Your task to perform on an android device: delete the emails in spam in the gmail app Image 0: 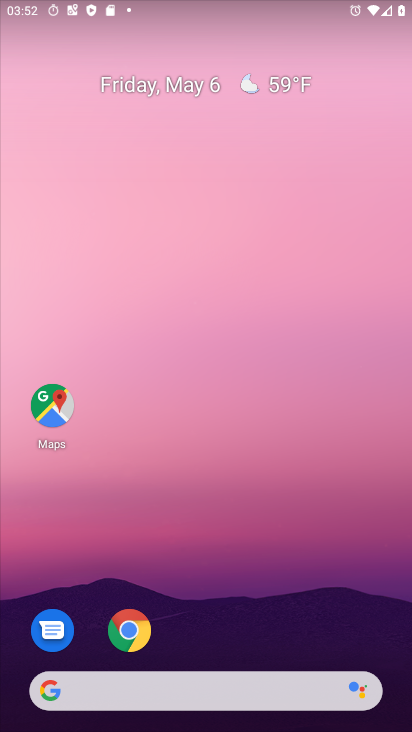
Step 0: drag from (225, 635) to (232, 220)
Your task to perform on an android device: delete the emails in spam in the gmail app Image 1: 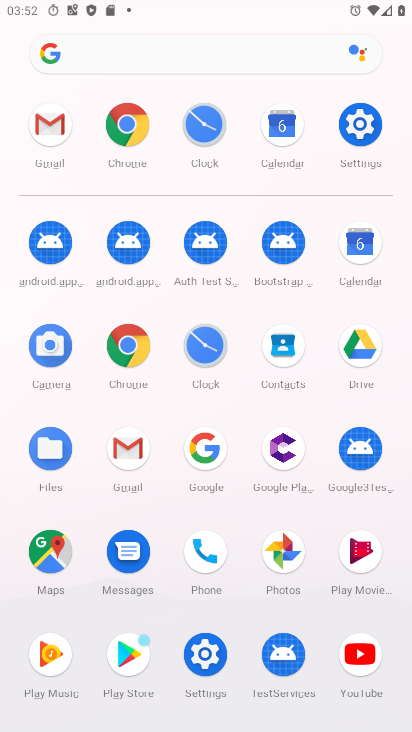
Step 1: click (67, 135)
Your task to perform on an android device: delete the emails in spam in the gmail app Image 2: 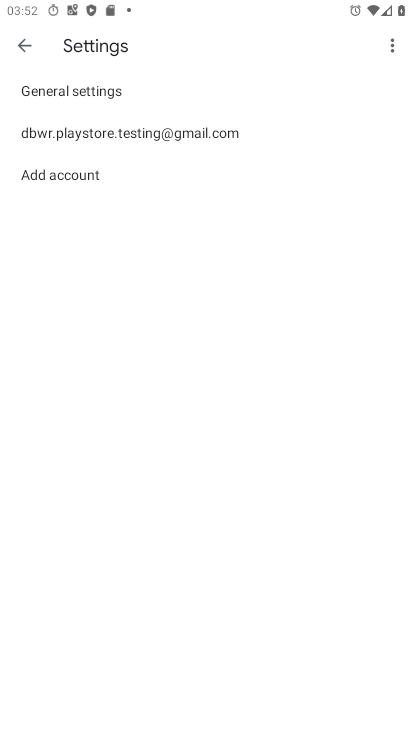
Step 2: click (19, 46)
Your task to perform on an android device: delete the emails in spam in the gmail app Image 3: 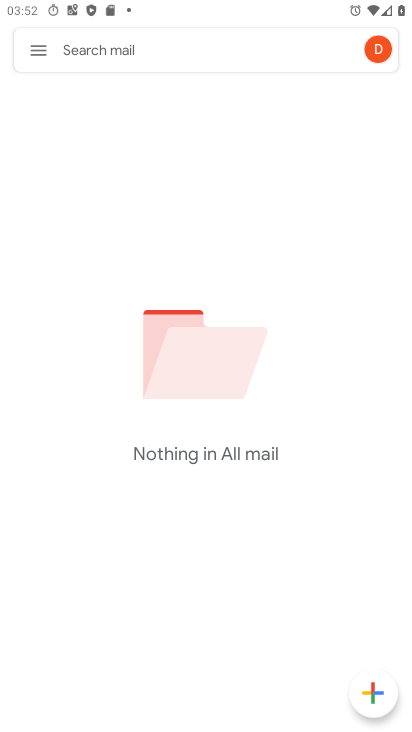
Step 3: click (19, 46)
Your task to perform on an android device: delete the emails in spam in the gmail app Image 4: 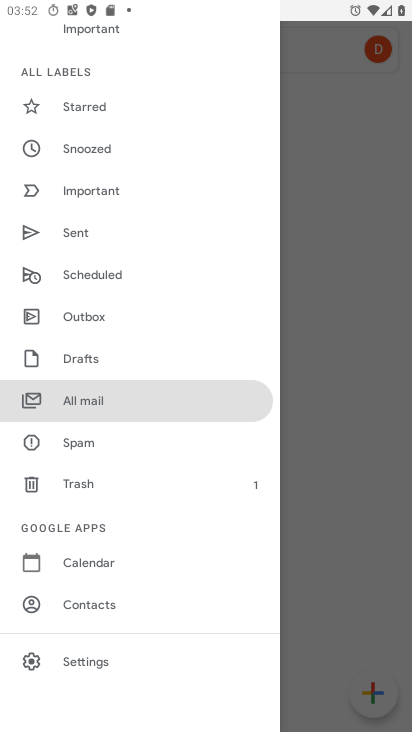
Step 4: click (90, 442)
Your task to perform on an android device: delete the emails in spam in the gmail app Image 5: 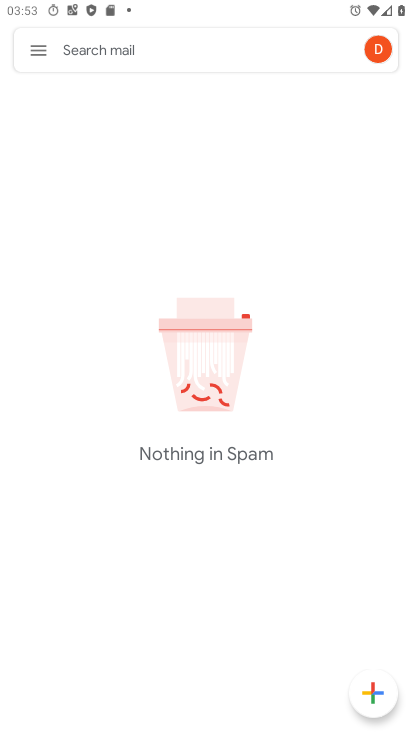
Step 5: task complete